Your task to perform on an android device: add a contact Image 0: 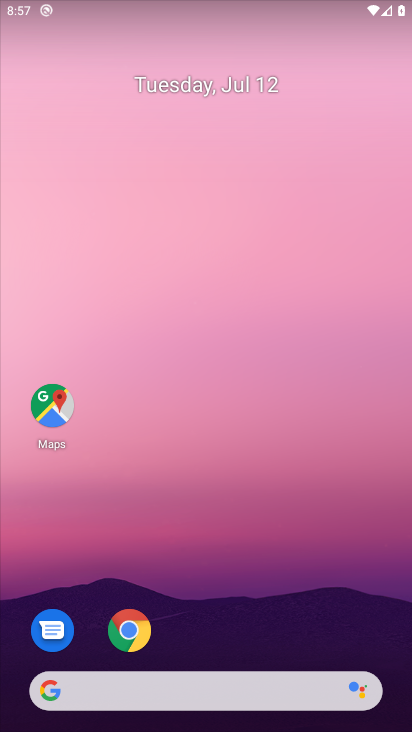
Step 0: press home button
Your task to perform on an android device: add a contact Image 1: 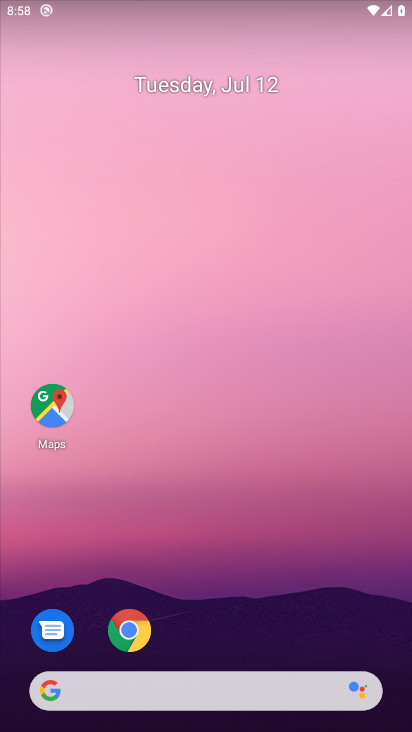
Step 1: drag from (223, 638) to (166, 82)
Your task to perform on an android device: add a contact Image 2: 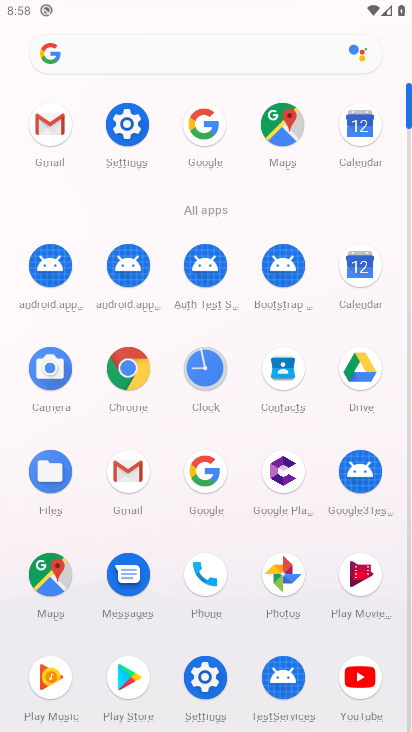
Step 2: click (277, 368)
Your task to perform on an android device: add a contact Image 3: 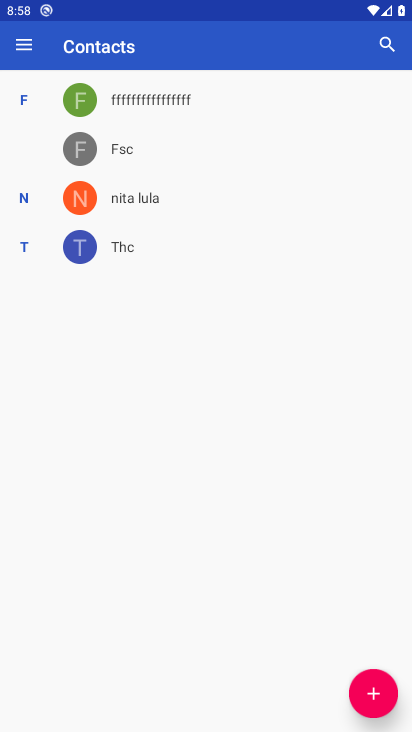
Step 3: click (372, 696)
Your task to perform on an android device: add a contact Image 4: 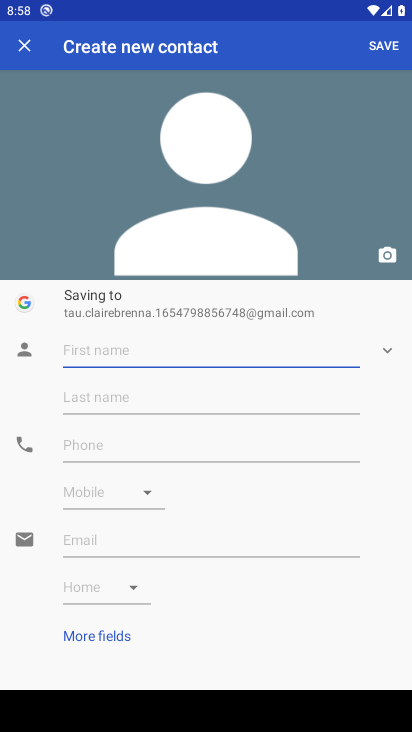
Step 4: type "hjhjhmhh"
Your task to perform on an android device: add a contact Image 5: 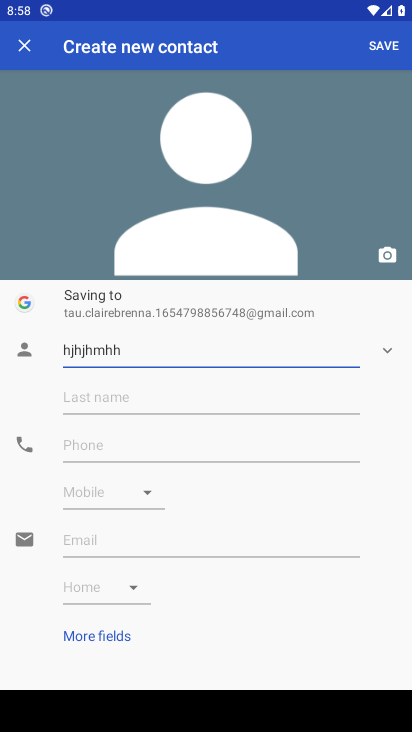
Step 5: click (134, 458)
Your task to perform on an android device: add a contact Image 6: 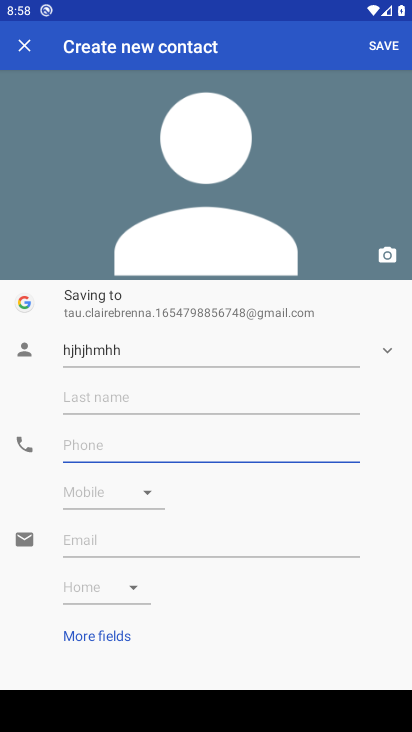
Step 6: type "5454545"
Your task to perform on an android device: add a contact Image 7: 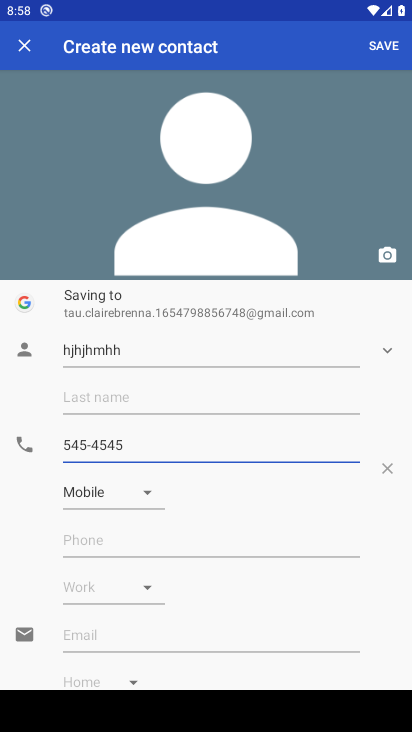
Step 7: click (388, 46)
Your task to perform on an android device: add a contact Image 8: 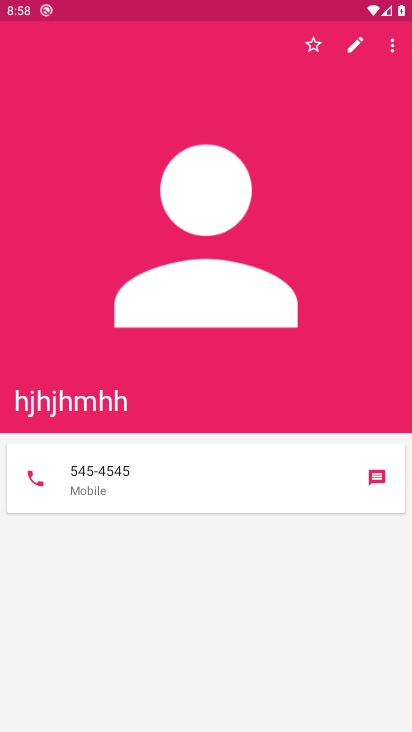
Step 8: task complete